Your task to perform on an android device: uninstall "Truecaller" Image 0: 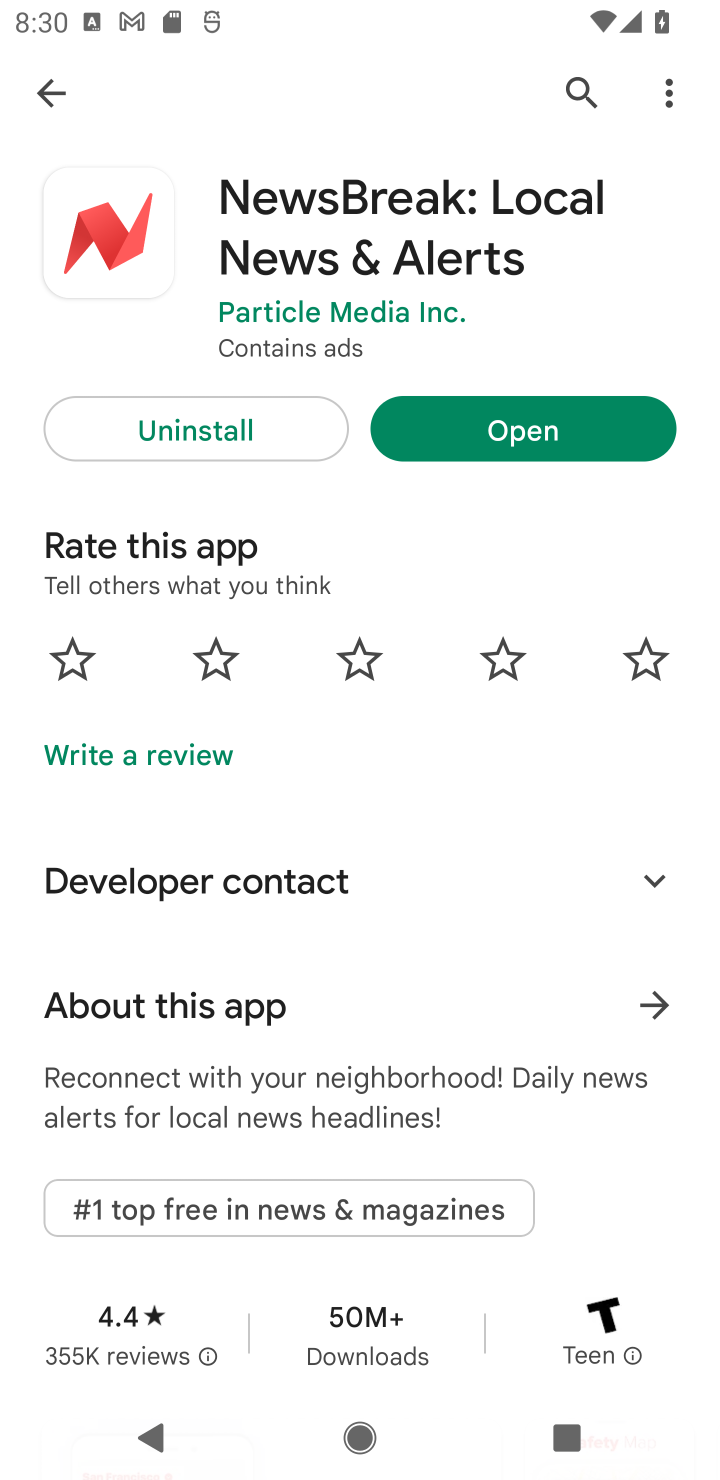
Step 0: press home button
Your task to perform on an android device: uninstall "Truecaller" Image 1: 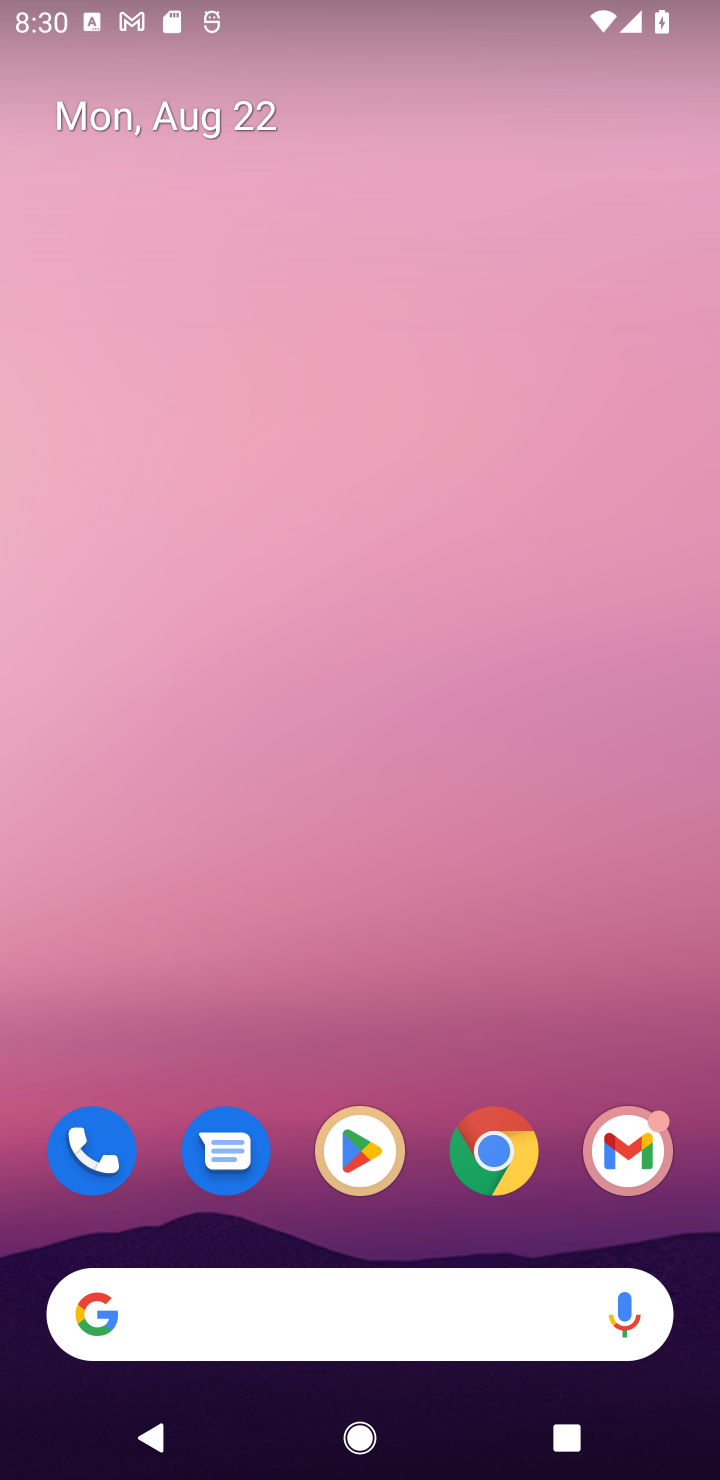
Step 1: click (349, 1162)
Your task to perform on an android device: uninstall "Truecaller" Image 2: 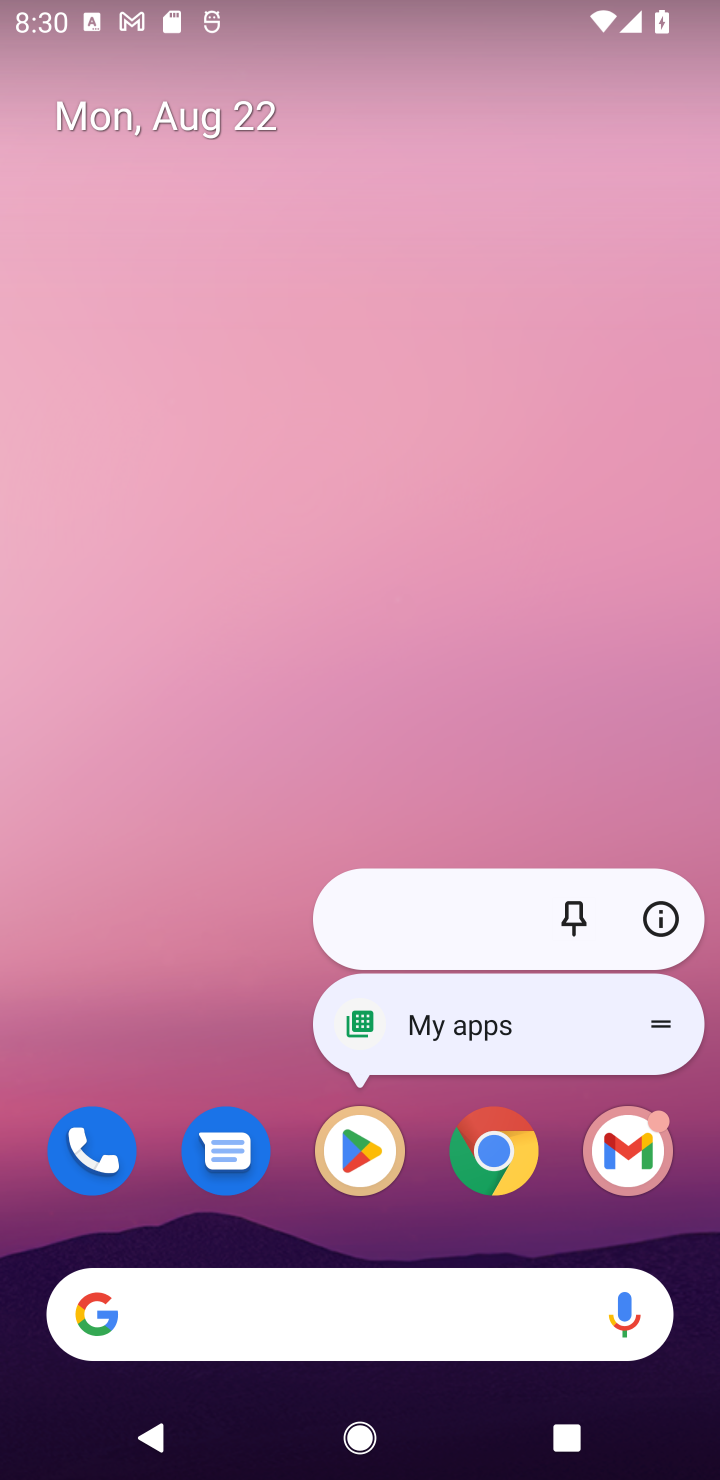
Step 2: click (347, 1169)
Your task to perform on an android device: uninstall "Truecaller" Image 3: 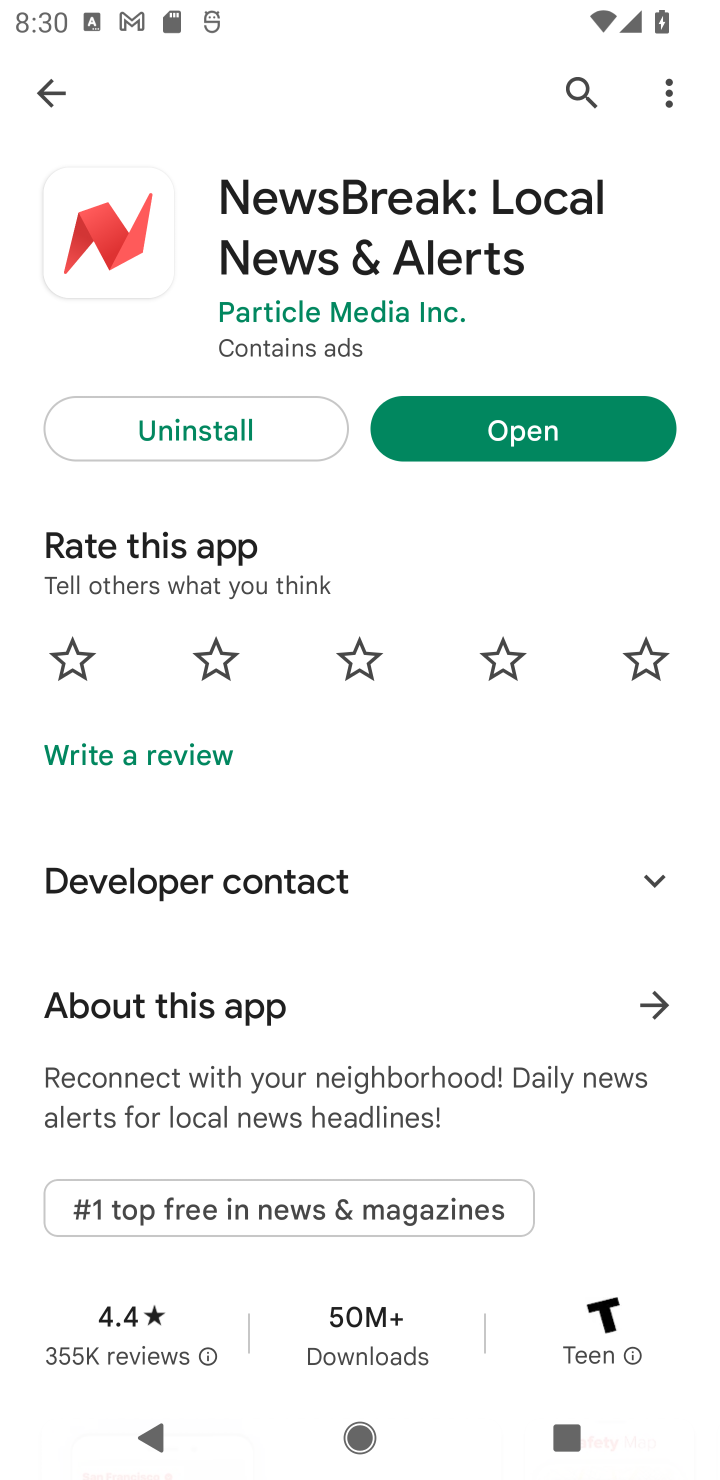
Step 3: click (347, 1169)
Your task to perform on an android device: uninstall "Truecaller" Image 4: 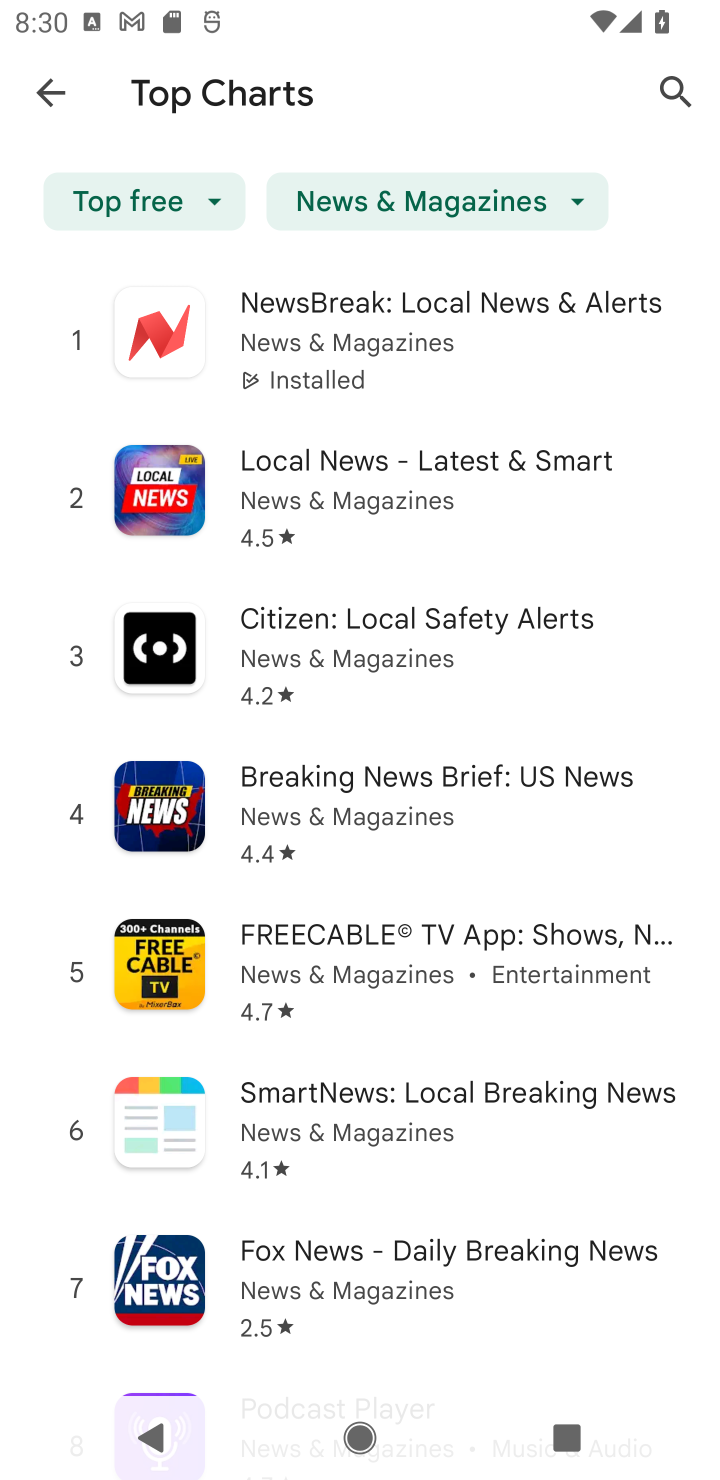
Step 4: click (33, 86)
Your task to perform on an android device: uninstall "Truecaller" Image 5: 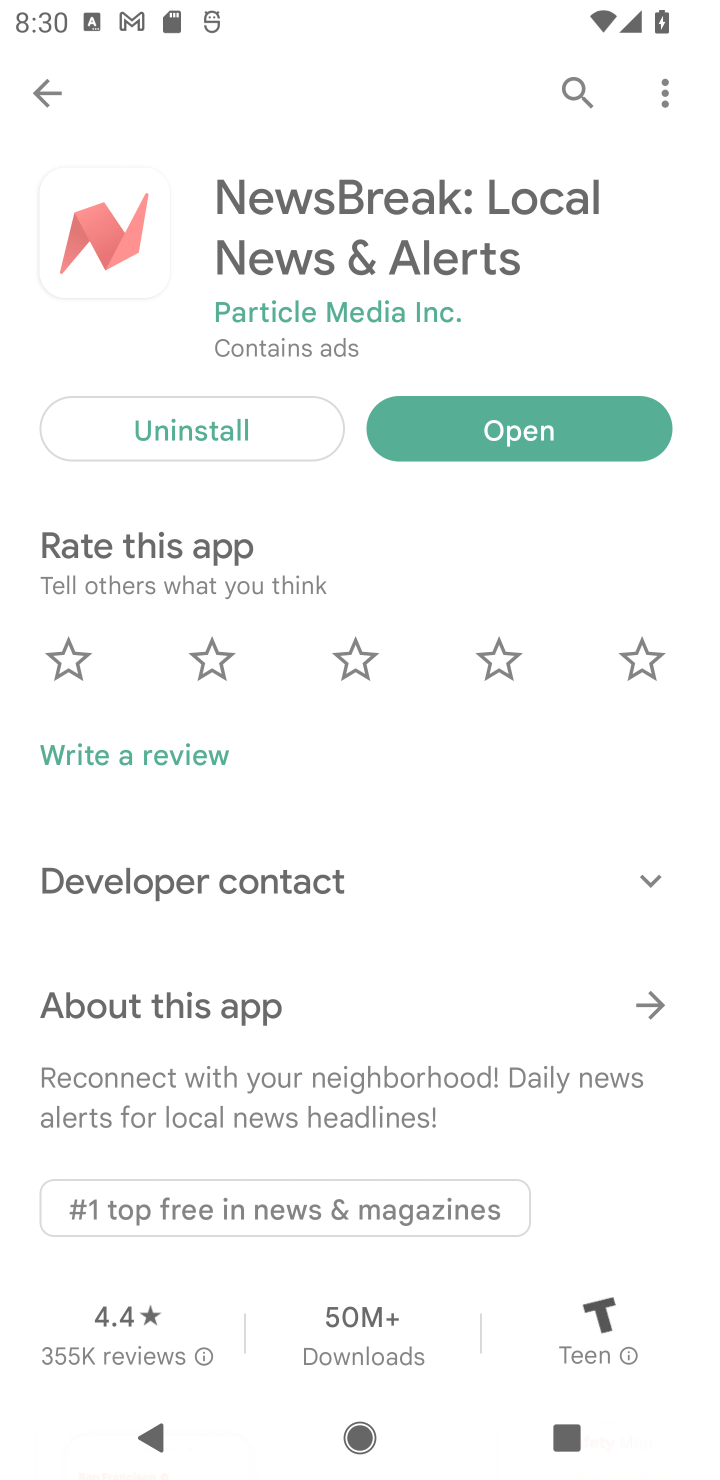
Step 5: click (670, 92)
Your task to perform on an android device: uninstall "Truecaller" Image 6: 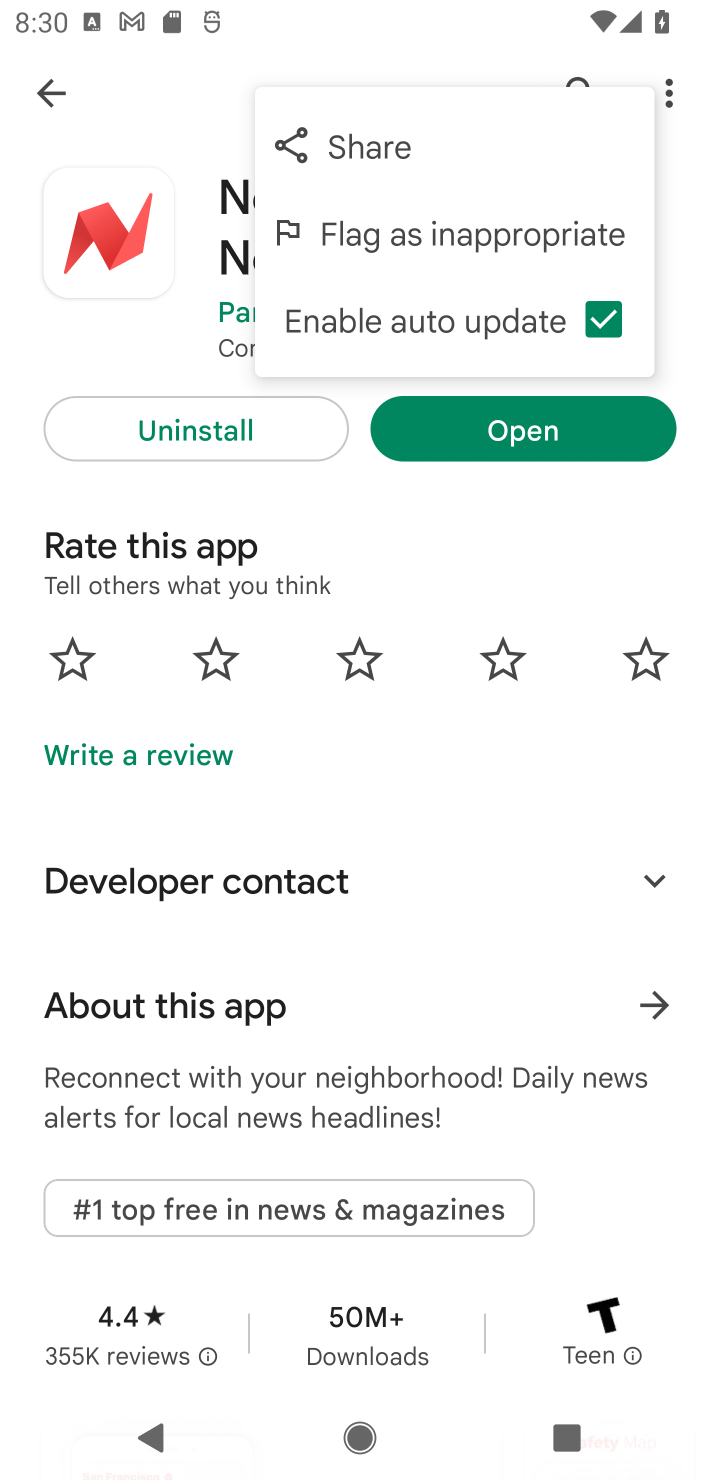
Step 6: click (528, 56)
Your task to perform on an android device: uninstall "Truecaller" Image 7: 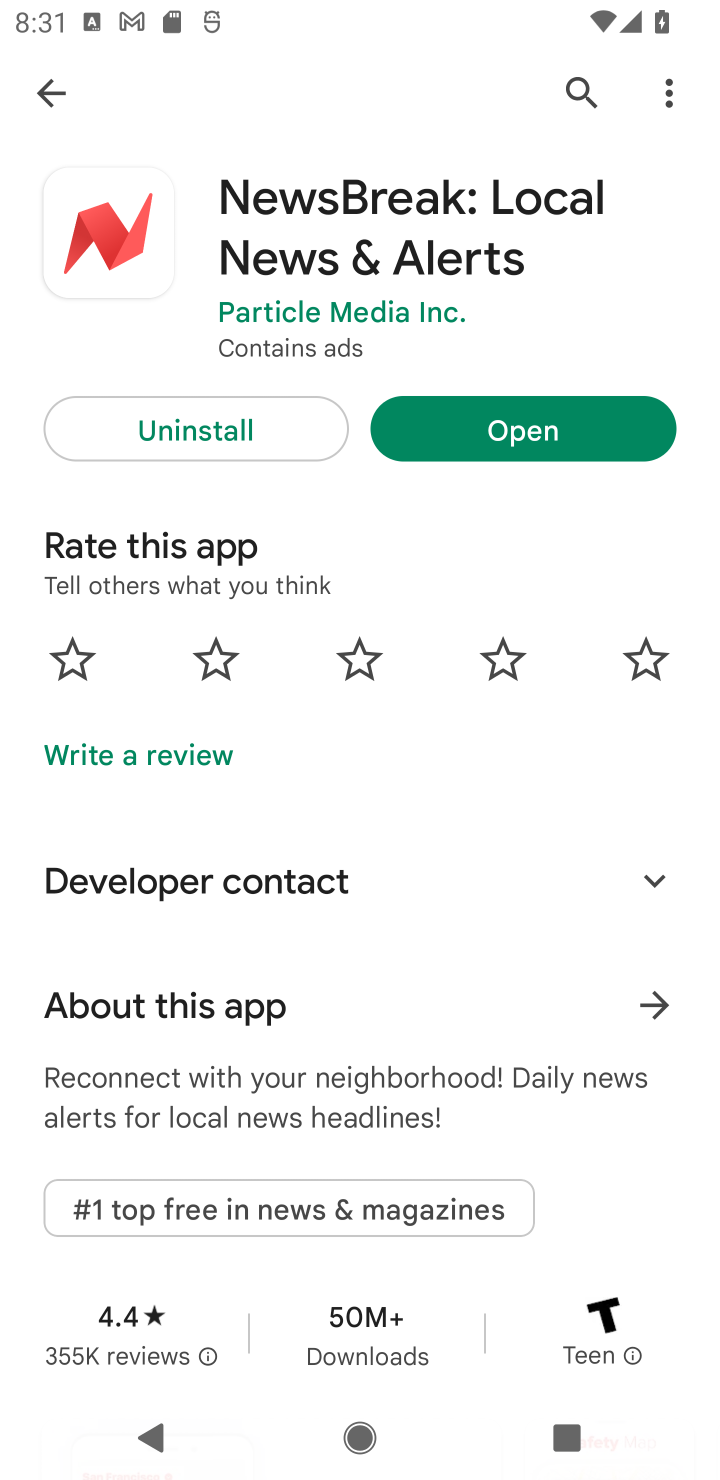
Step 7: click (573, 64)
Your task to perform on an android device: uninstall "Truecaller" Image 8: 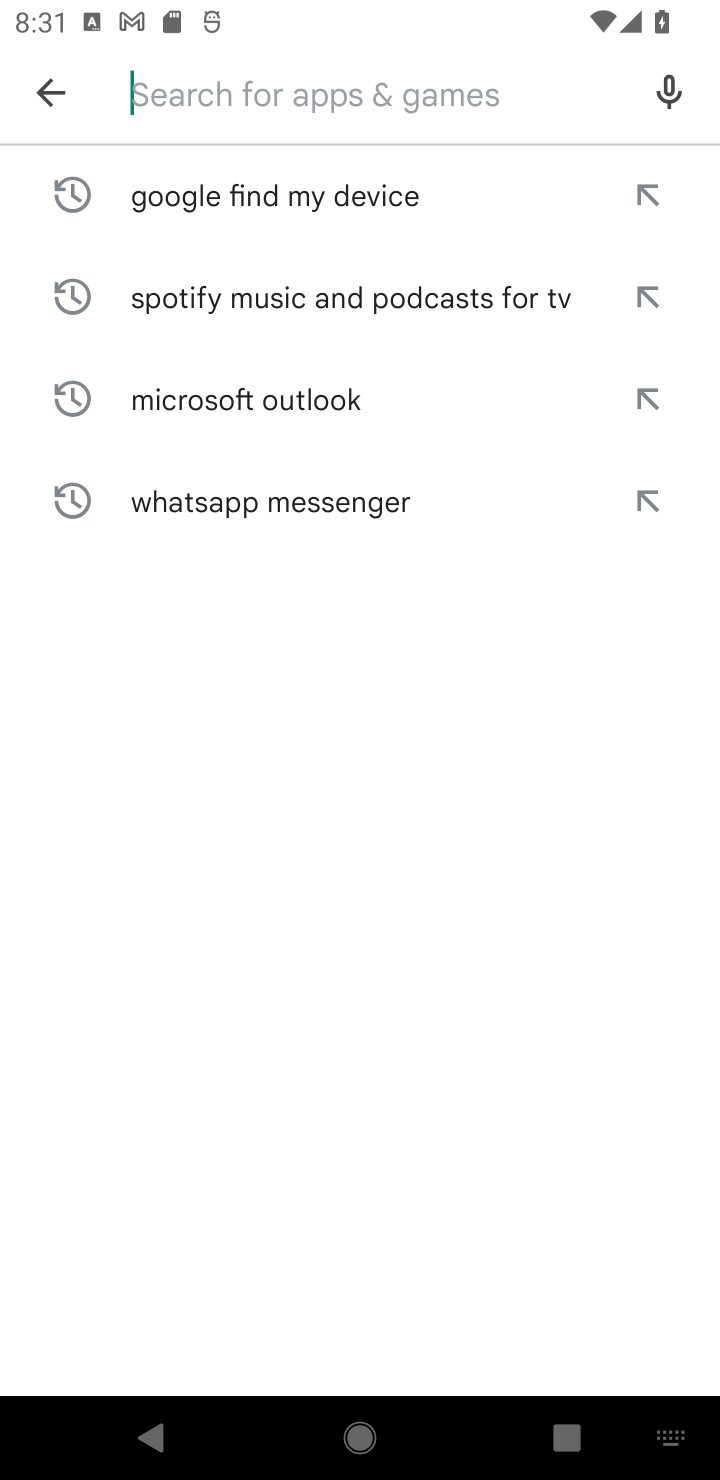
Step 8: type "Truecaller"
Your task to perform on an android device: uninstall "Truecaller" Image 9: 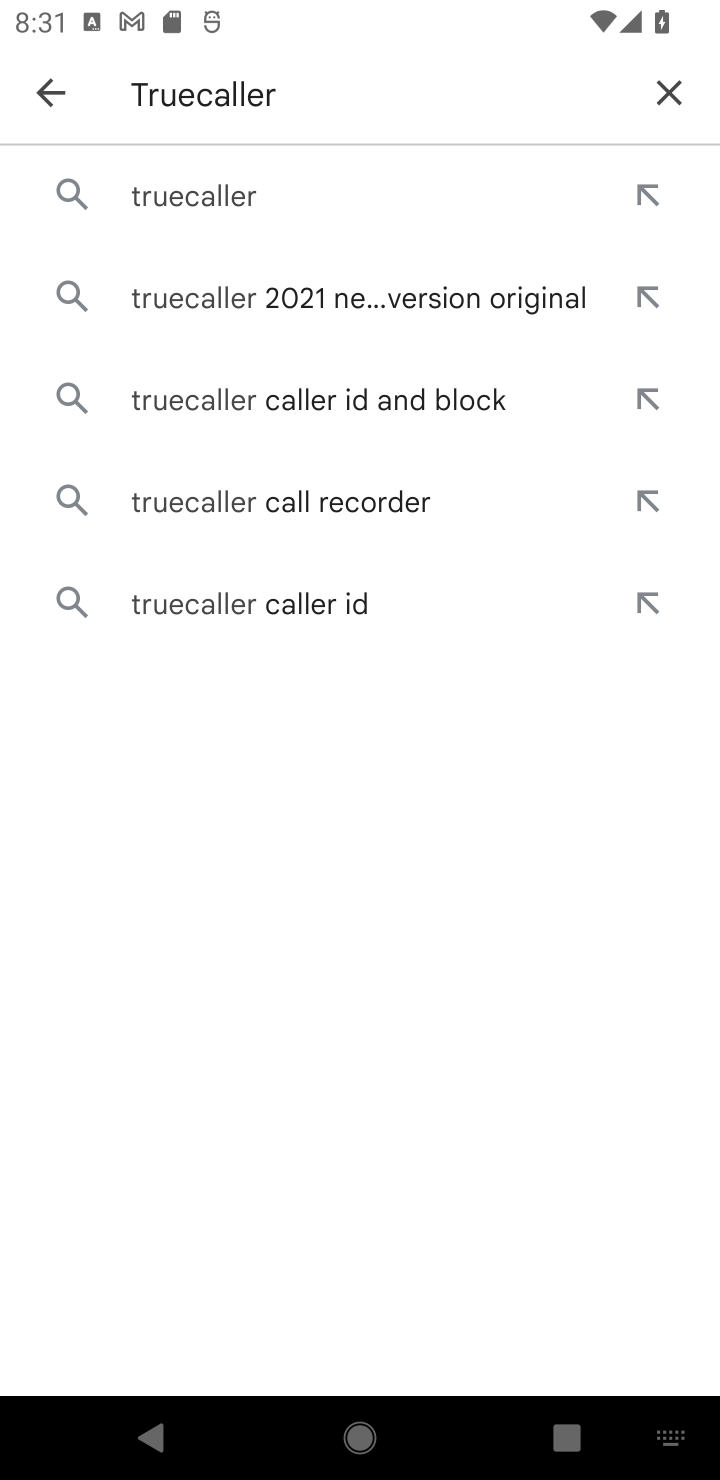
Step 9: click (187, 189)
Your task to perform on an android device: uninstall "Truecaller" Image 10: 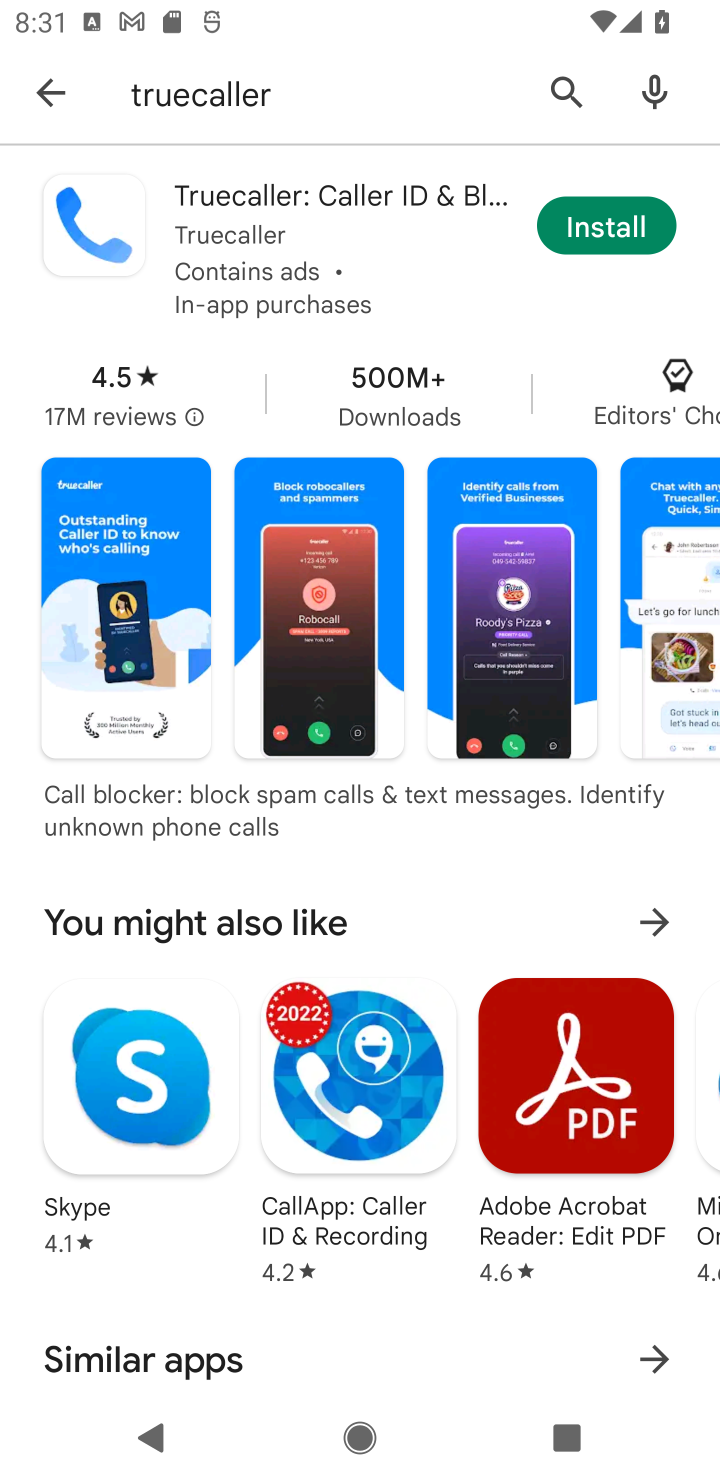
Step 10: task complete